Your task to perform on an android device: Clear the cart on ebay. Image 0: 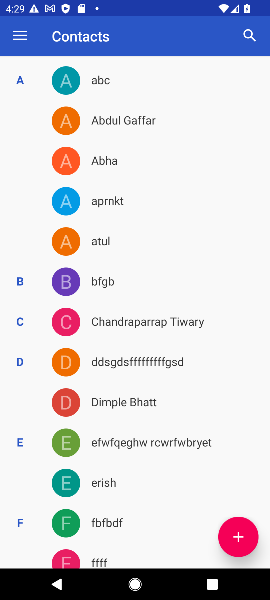
Step 0: press home button
Your task to perform on an android device: Clear the cart on ebay. Image 1: 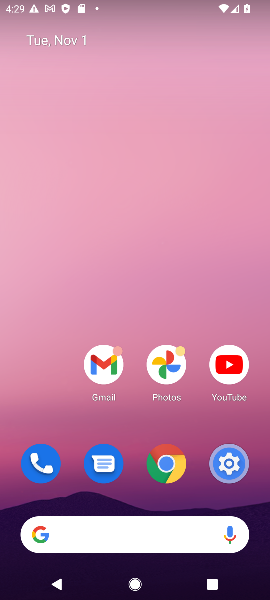
Step 1: click (168, 473)
Your task to perform on an android device: Clear the cart on ebay. Image 2: 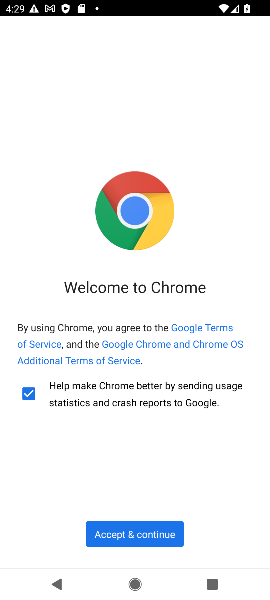
Step 2: click (137, 533)
Your task to perform on an android device: Clear the cart on ebay. Image 3: 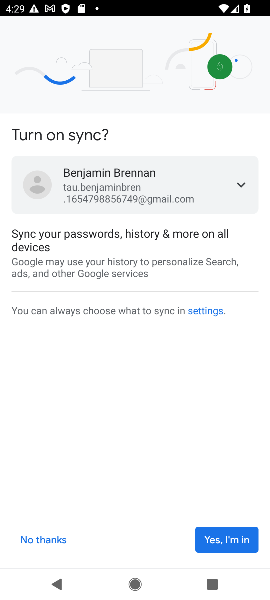
Step 3: click (42, 538)
Your task to perform on an android device: Clear the cart on ebay. Image 4: 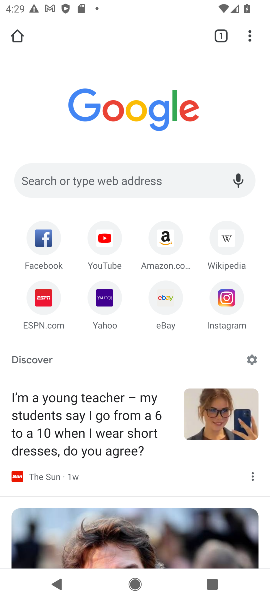
Step 4: click (159, 180)
Your task to perform on an android device: Clear the cart on ebay. Image 5: 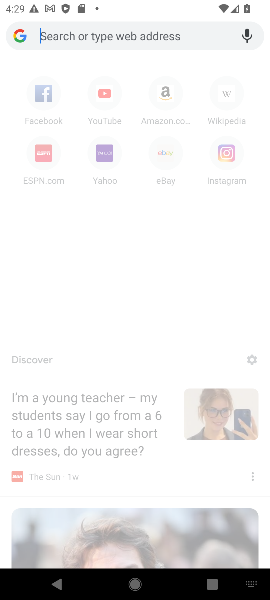
Step 5: type "ebay"
Your task to perform on an android device: Clear the cart on ebay. Image 6: 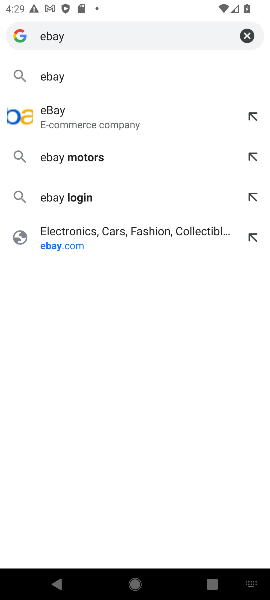
Step 6: click (62, 79)
Your task to perform on an android device: Clear the cart on ebay. Image 7: 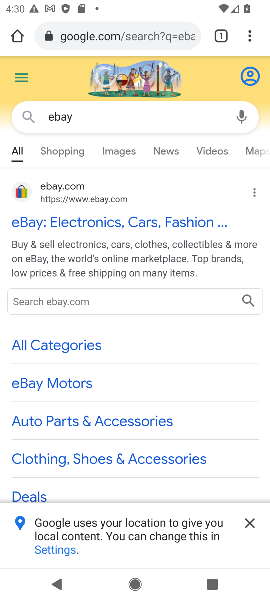
Step 7: click (87, 221)
Your task to perform on an android device: Clear the cart on ebay. Image 8: 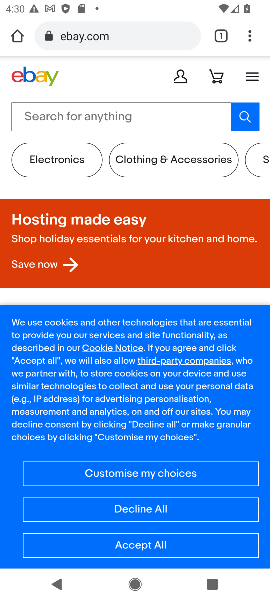
Step 8: click (217, 75)
Your task to perform on an android device: Clear the cart on ebay. Image 9: 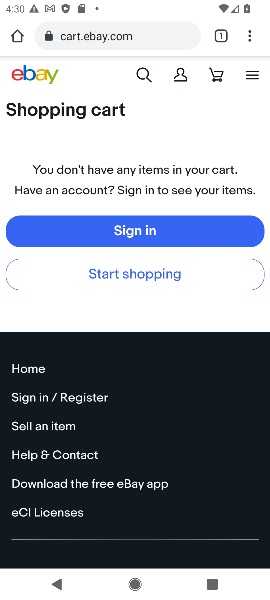
Step 9: task complete